Your task to perform on an android device: turn on notifications settings in the gmail app Image 0: 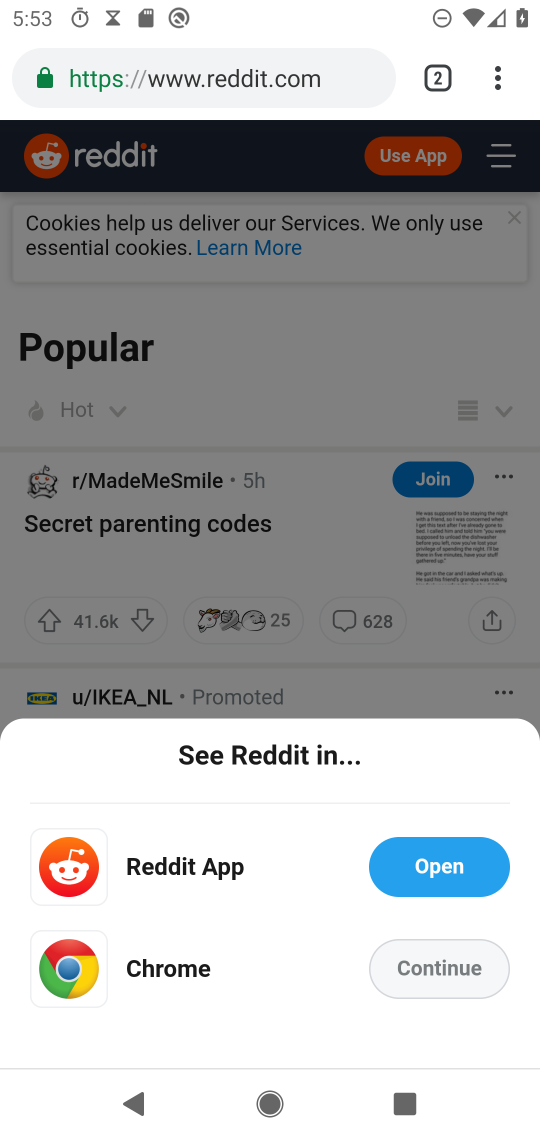
Step 0: press home button
Your task to perform on an android device: turn on notifications settings in the gmail app Image 1: 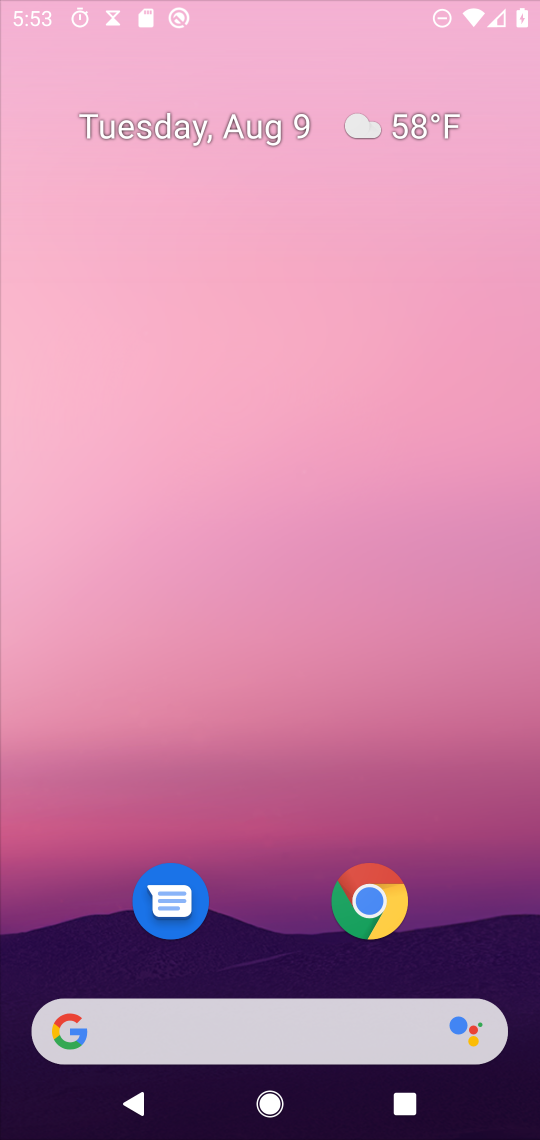
Step 1: drag from (300, 885) to (485, 15)
Your task to perform on an android device: turn on notifications settings in the gmail app Image 2: 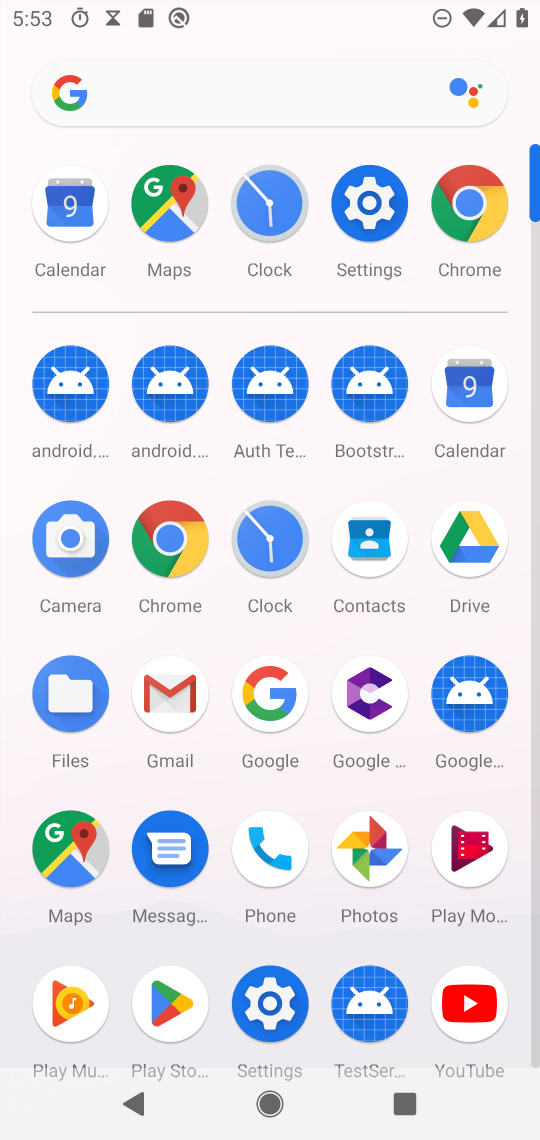
Step 2: click (180, 673)
Your task to perform on an android device: turn on notifications settings in the gmail app Image 3: 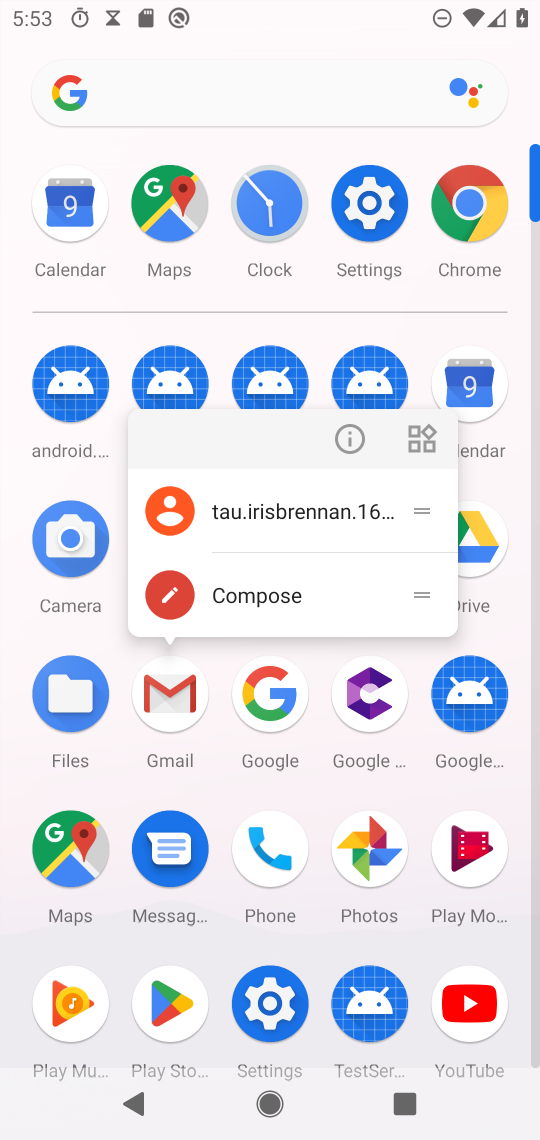
Step 3: click (350, 435)
Your task to perform on an android device: turn on notifications settings in the gmail app Image 4: 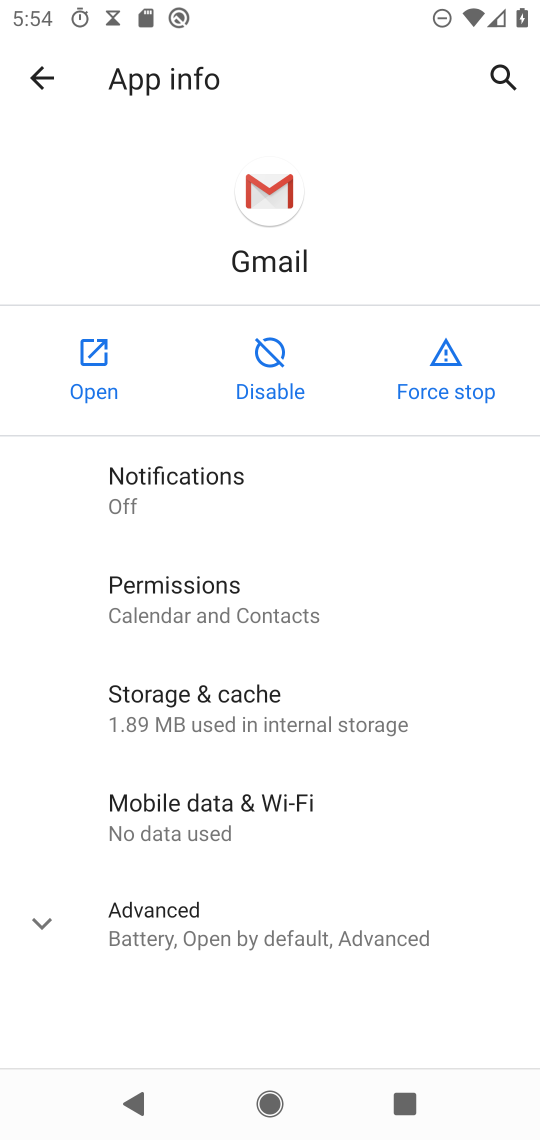
Step 4: click (285, 478)
Your task to perform on an android device: turn on notifications settings in the gmail app Image 5: 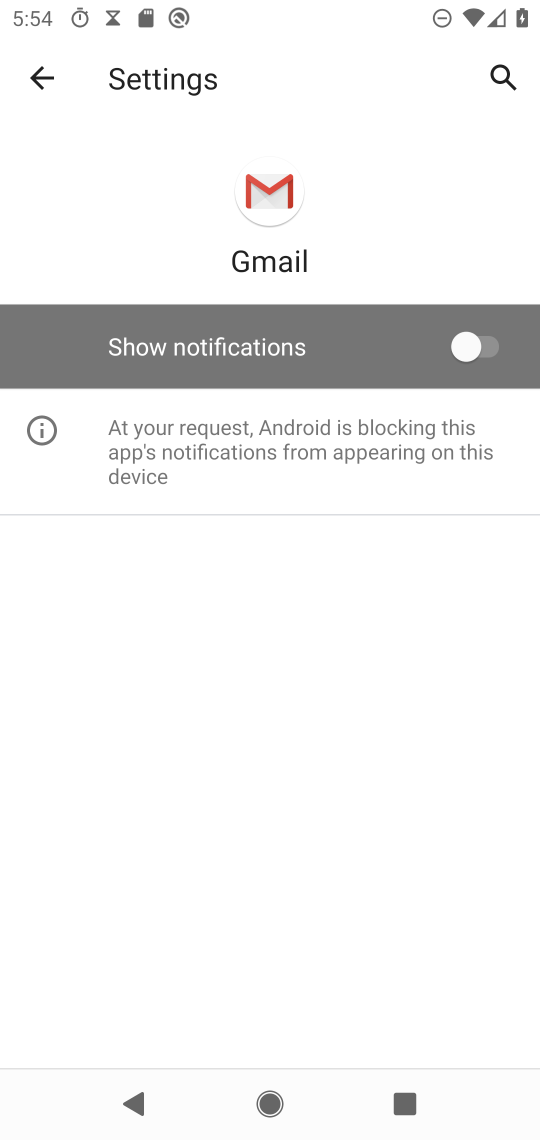
Step 5: click (458, 348)
Your task to perform on an android device: turn on notifications settings in the gmail app Image 6: 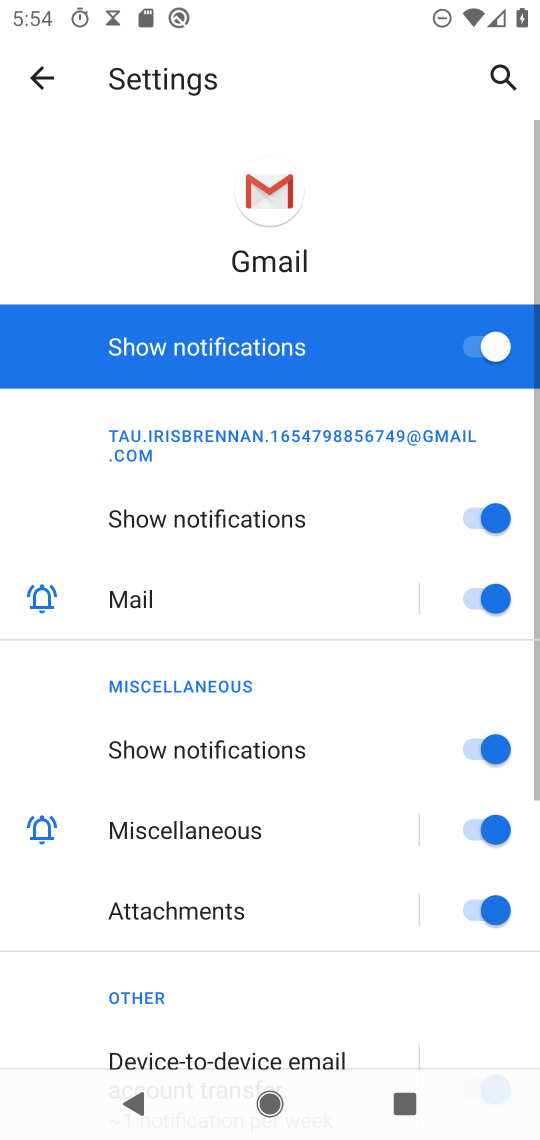
Step 6: task complete